Your task to perform on an android device: refresh tabs in the chrome app Image 0: 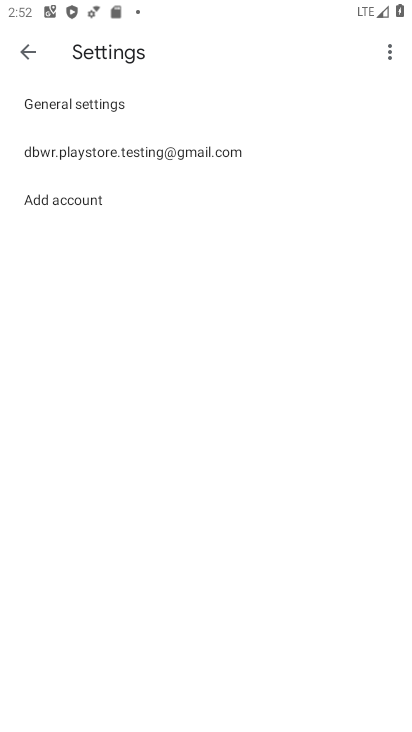
Step 0: press home button
Your task to perform on an android device: refresh tabs in the chrome app Image 1: 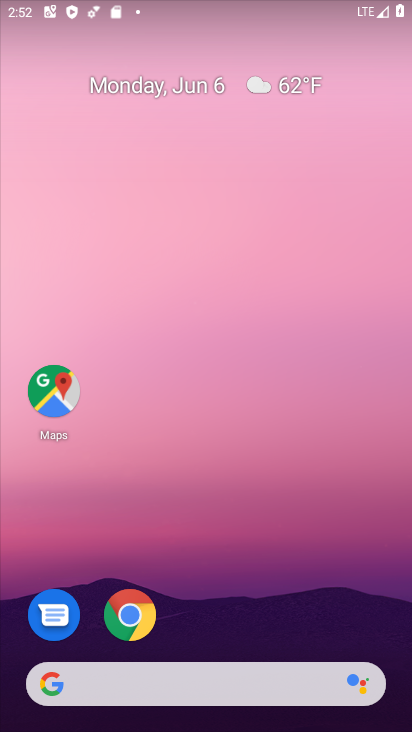
Step 1: drag from (227, 649) to (392, 312)
Your task to perform on an android device: refresh tabs in the chrome app Image 2: 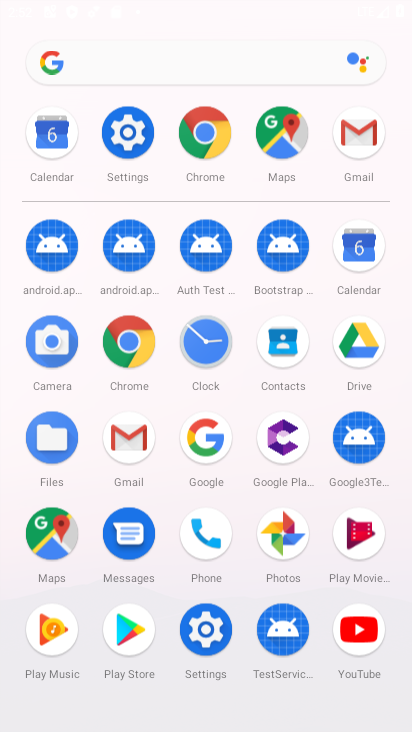
Step 2: click (141, 341)
Your task to perform on an android device: refresh tabs in the chrome app Image 3: 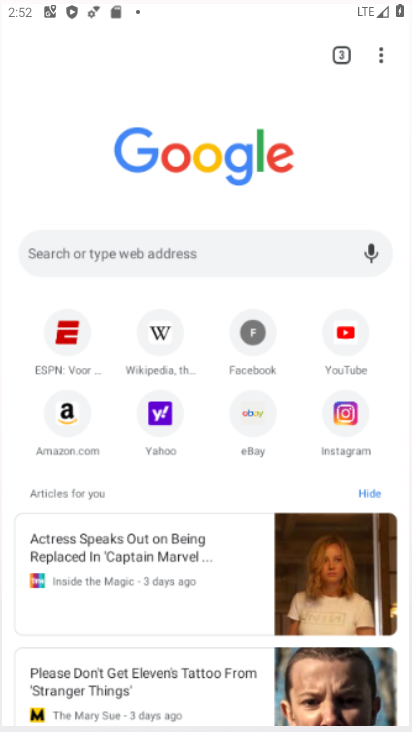
Step 3: click (138, 340)
Your task to perform on an android device: refresh tabs in the chrome app Image 4: 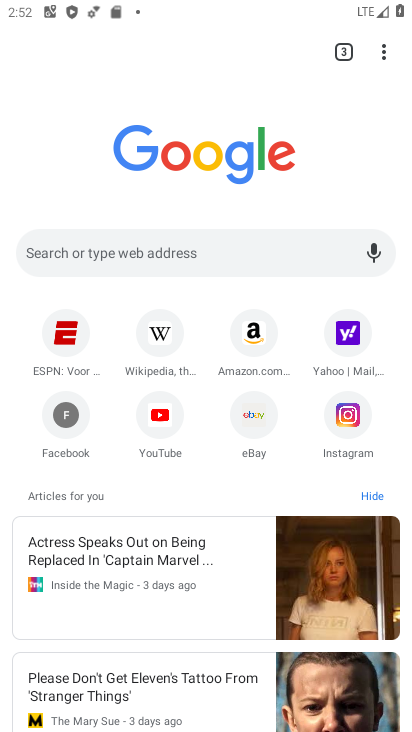
Step 4: click (388, 60)
Your task to perform on an android device: refresh tabs in the chrome app Image 5: 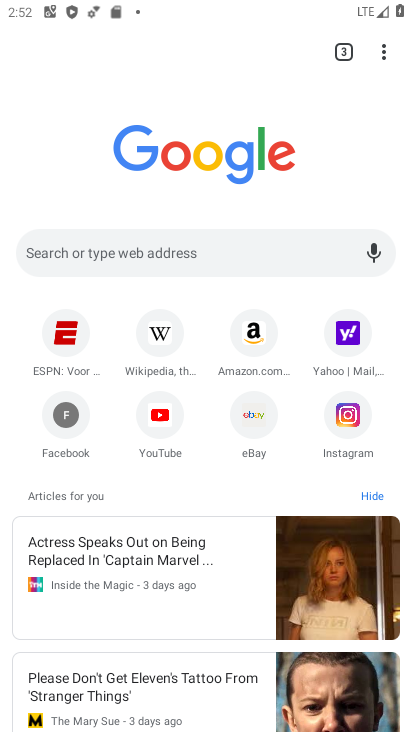
Step 5: task complete